Your task to perform on an android device: change notification settings in the gmail app Image 0: 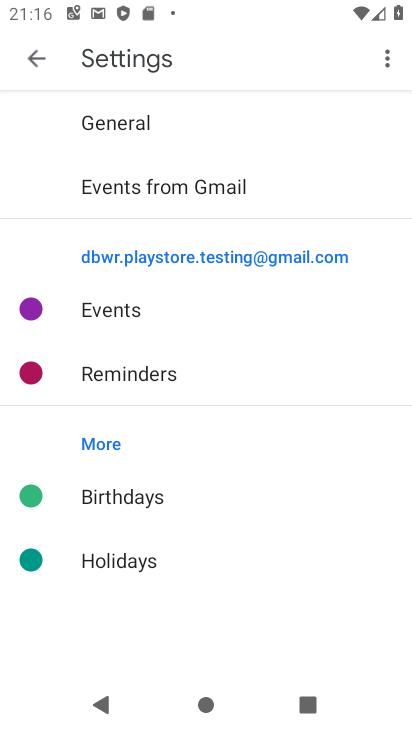
Step 0: press home button
Your task to perform on an android device: change notification settings in the gmail app Image 1: 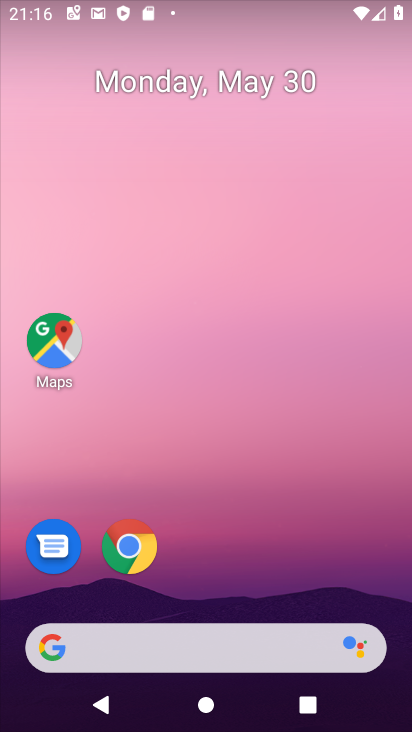
Step 1: drag from (298, 562) to (309, 192)
Your task to perform on an android device: change notification settings in the gmail app Image 2: 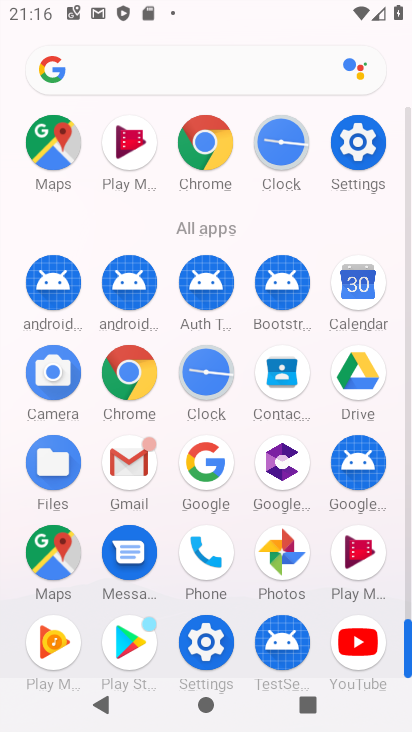
Step 2: click (123, 467)
Your task to perform on an android device: change notification settings in the gmail app Image 3: 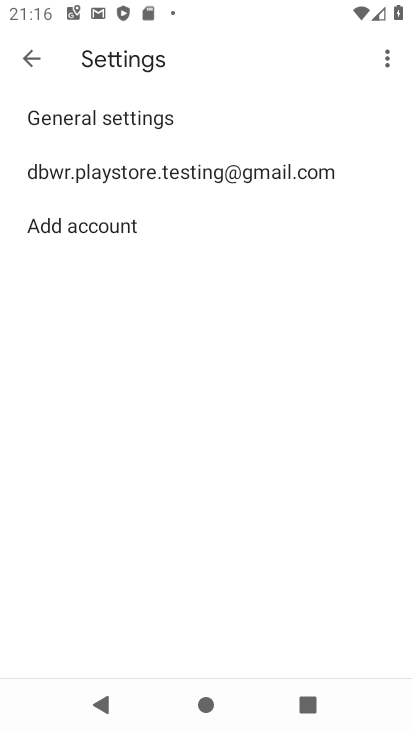
Step 3: click (293, 172)
Your task to perform on an android device: change notification settings in the gmail app Image 4: 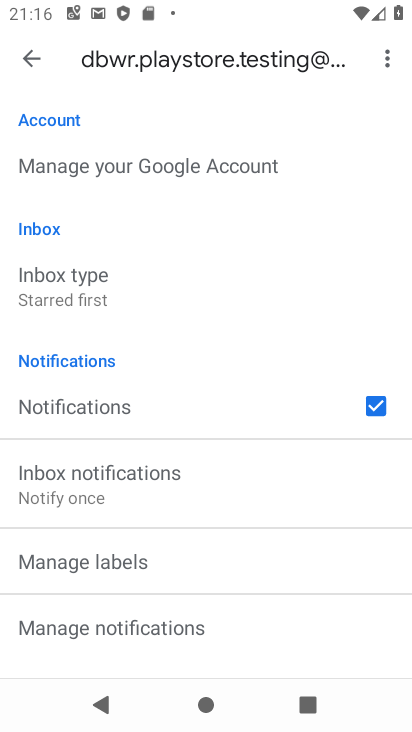
Step 4: click (155, 474)
Your task to perform on an android device: change notification settings in the gmail app Image 5: 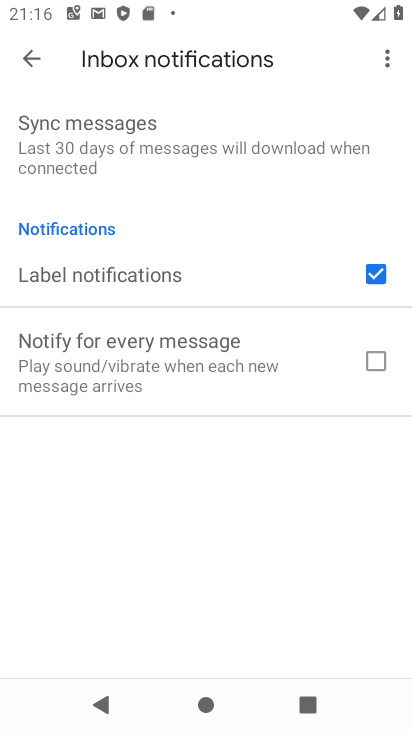
Step 5: click (374, 282)
Your task to perform on an android device: change notification settings in the gmail app Image 6: 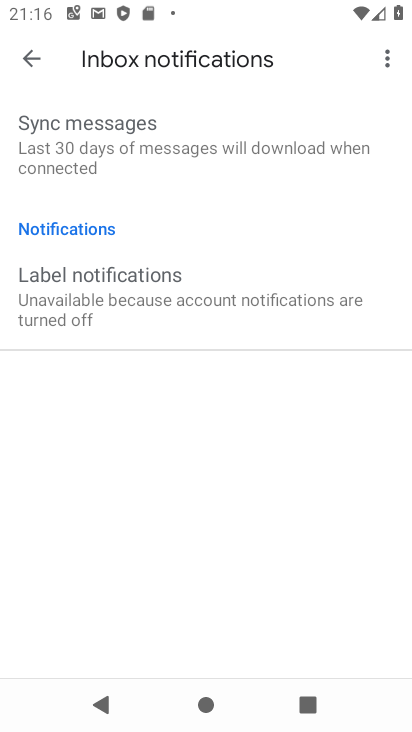
Step 6: task complete